Your task to perform on an android device: choose inbox layout in the gmail app Image 0: 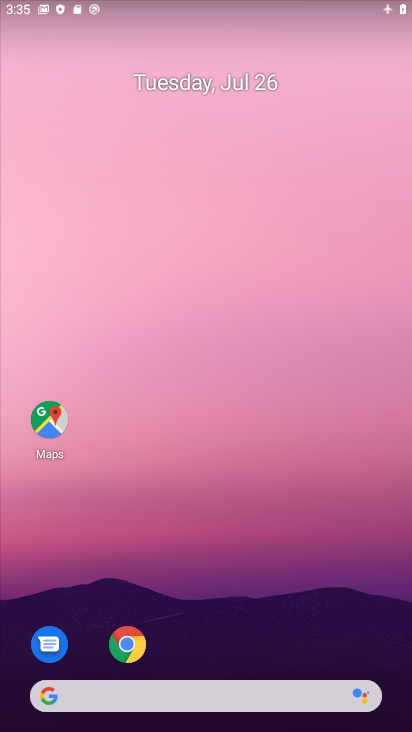
Step 0: drag from (365, 642) to (349, 108)
Your task to perform on an android device: choose inbox layout in the gmail app Image 1: 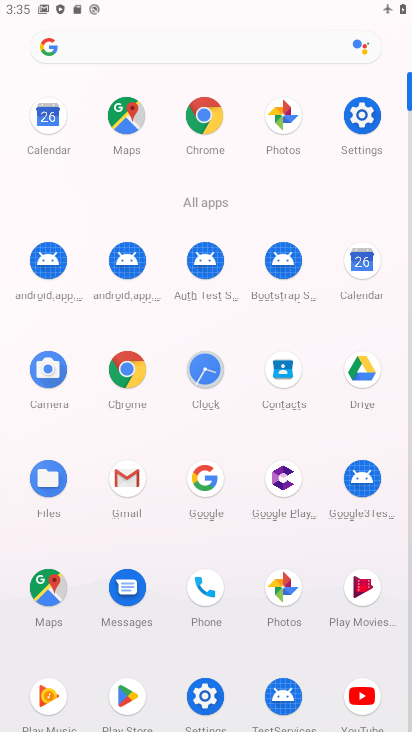
Step 1: click (127, 479)
Your task to perform on an android device: choose inbox layout in the gmail app Image 2: 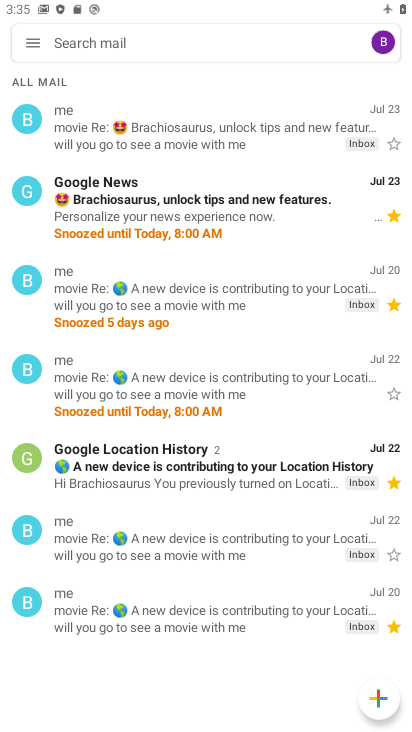
Step 2: click (27, 40)
Your task to perform on an android device: choose inbox layout in the gmail app Image 3: 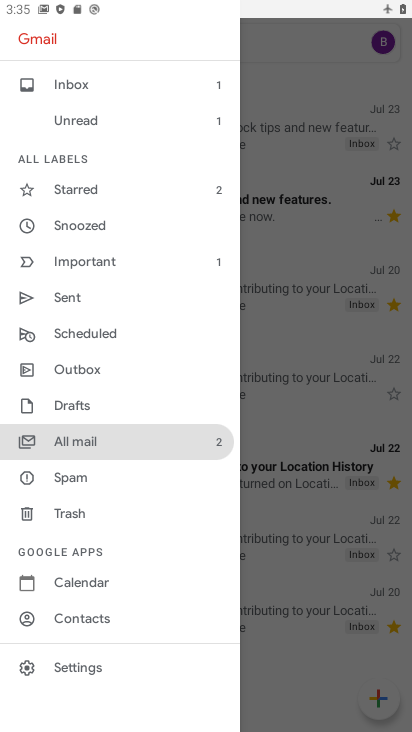
Step 3: click (80, 667)
Your task to perform on an android device: choose inbox layout in the gmail app Image 4: 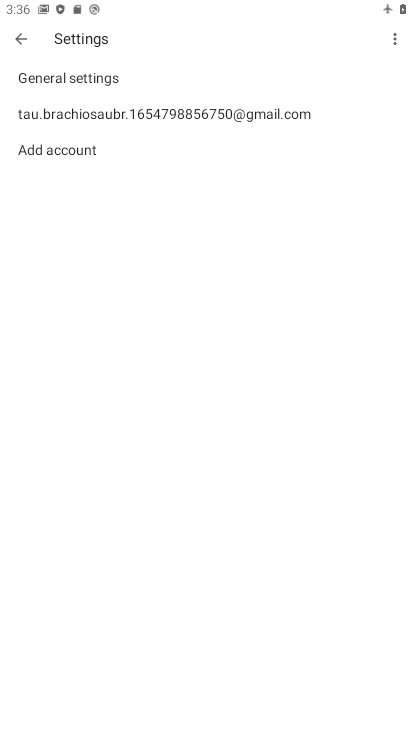
Step 4: click (108, 117)
Your task to perform on an android device: choose inbox layout in the gmail app Image 5: 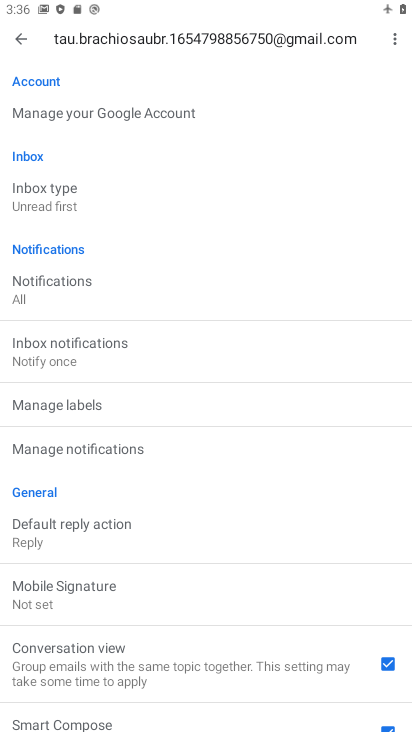
Step 5: click (42, 185)
Your task to perform on an android device: choose inbox layout in the gmail app Image 6: 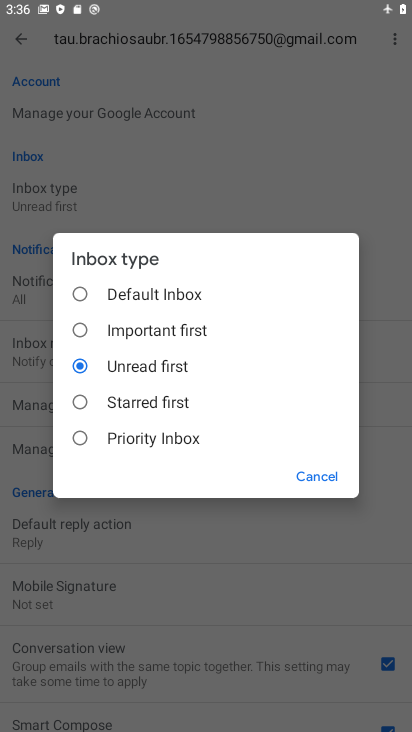
Step 6: click (81, 294)
Your task to perform on an android device: choose inbox layout in the gmail app Image 7: 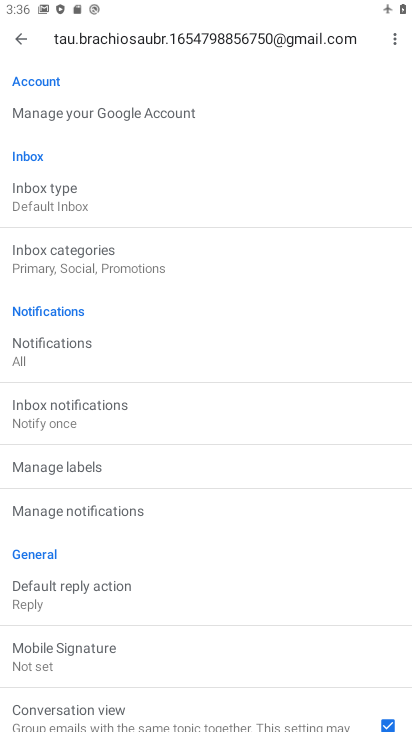
Step 7: task complete